Your task to perform on an android device: Go to location settings Image 0: 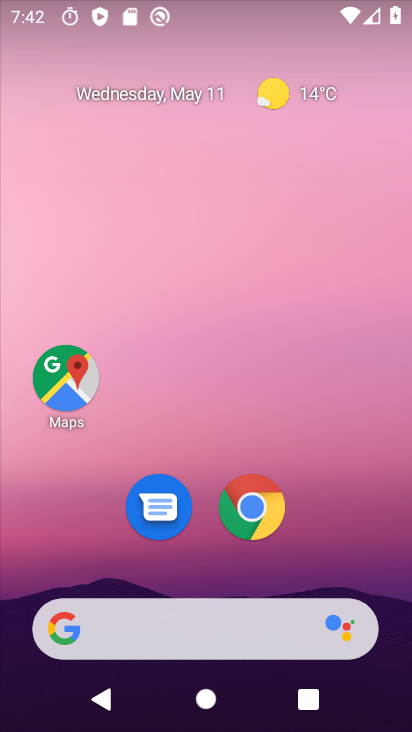
Step 0: drag from (378, 485) to (306, 0)
Your task to perform on an android device: Go to location settings Image 1: 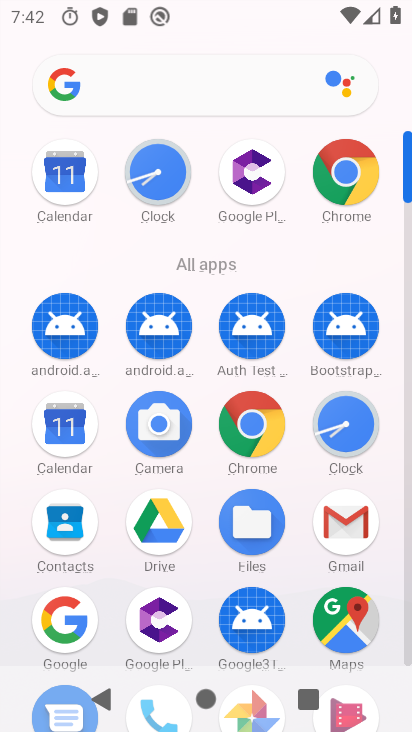
Step 1: drag from (397, 645) to (362, 263)
Your task to perform on an android device: Go to location settings Image 2: 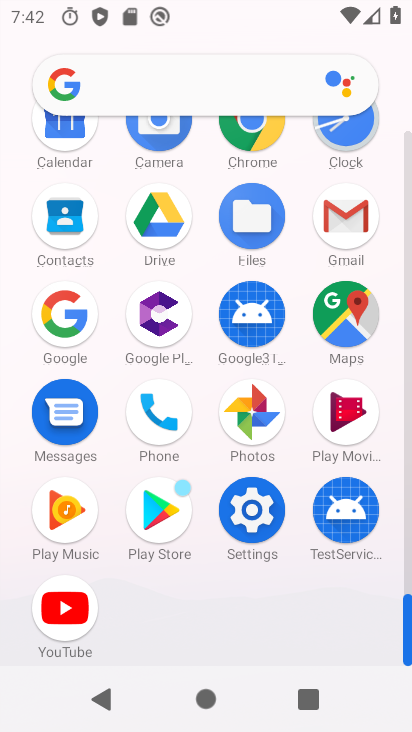
Step 2: click (251, 516)
Your task to perform on an android device: Go to location settings Image 3: 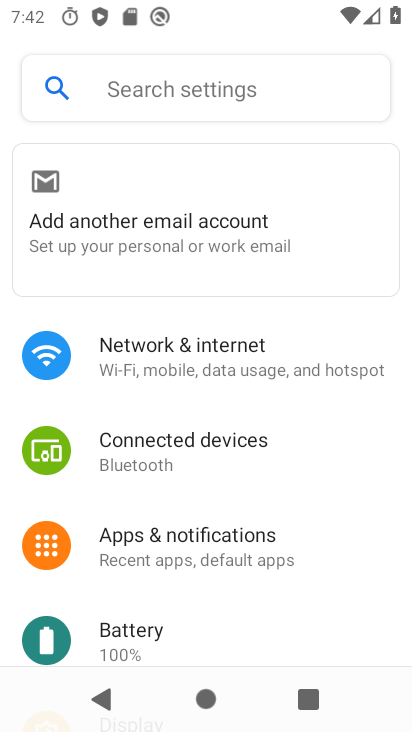
Step 3: drag from (224, 569) to (198, 243)
Your task to perform on an android device: Go to location settings Image 4: 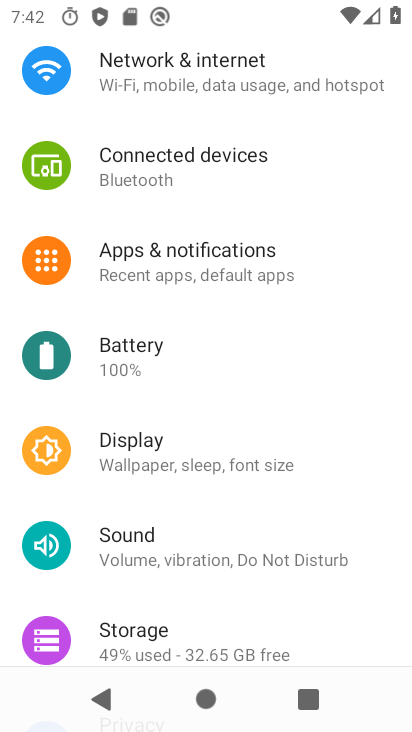
Step 4: drag from (220, 552) to (280, 296)
Your task to perform on an android device: Go to location settings Image 5: 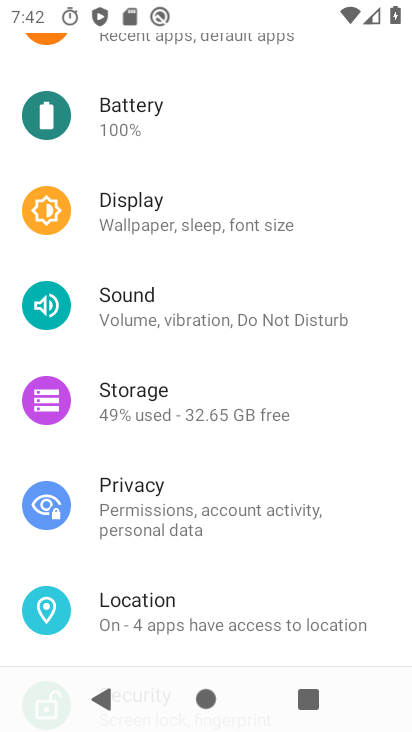
Step 5: drag from (233, 586) to (223, 406)
Your task to perform on an android device: Go to location settings Image 6: 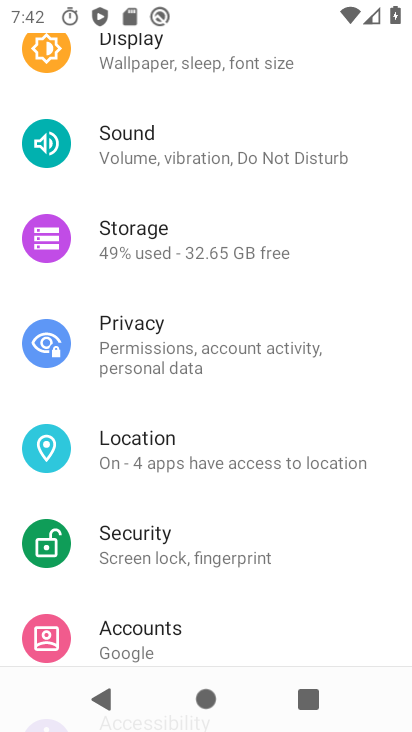
Step 6: click (190, 441)
Your task to perform on an android device: Go to location settings Image 7: 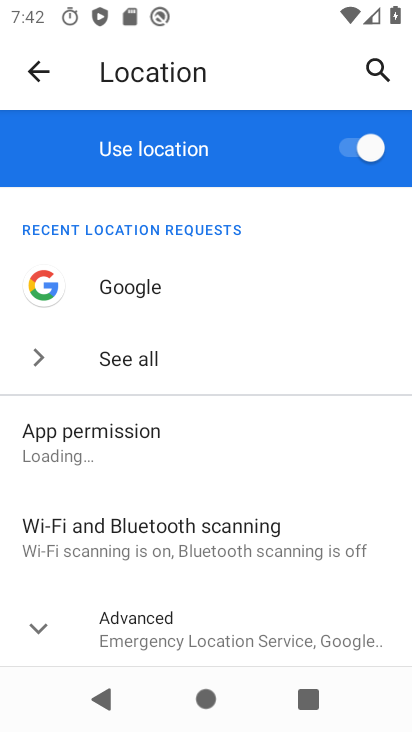
Step 7: task complete